Your task to perform on an android device: all mails in gmail Image 0: 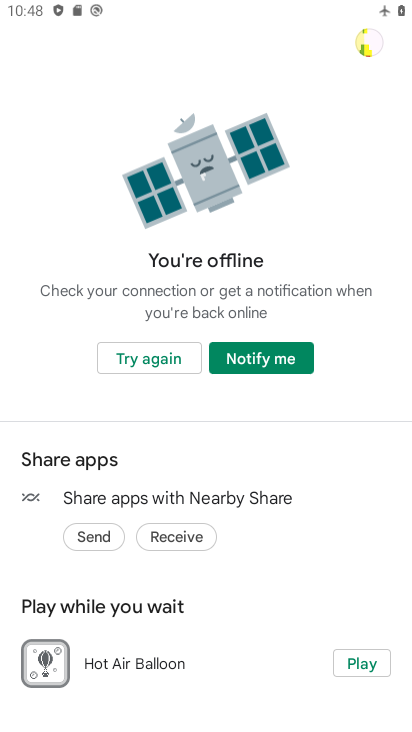
Step 0: press home button
Your task to perform on an android device: all mails in gmail Image 1: 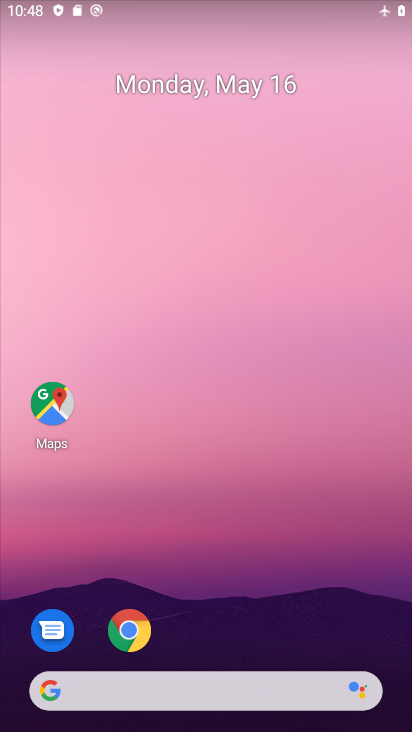
Step 1: drag from (227, 653) to (203, 164)
Your task to perform on an android device: all mails in gmail Image 2: 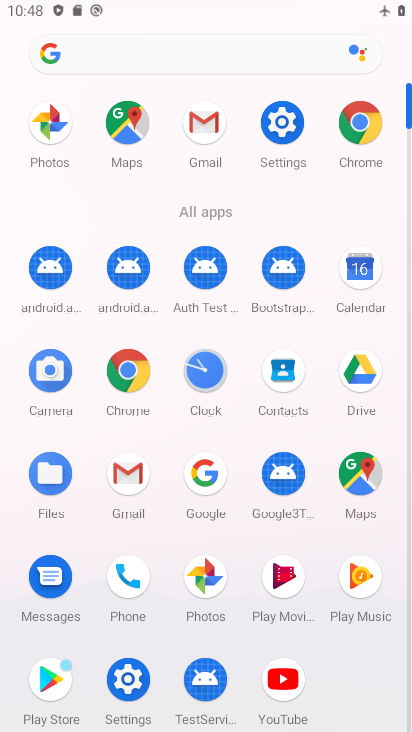
Step 2: click (190, 141)
Your task to perform on an android device: all mails in gmail Image 3: 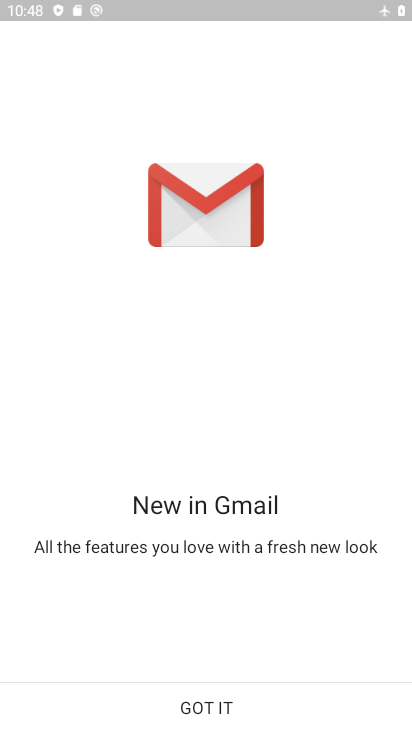
Step 3: click (219, 710)
Your task to perform on an android device: all mails in gmail Image 4: 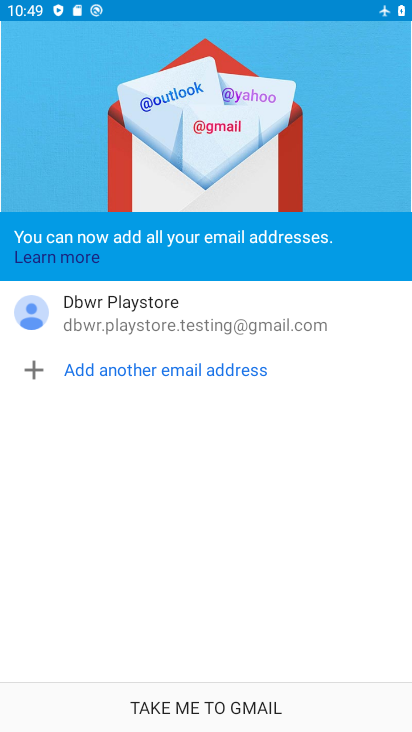
Step 4: click (219, 710)
Your task to perform on an android device: all mails in gmail Image 5: 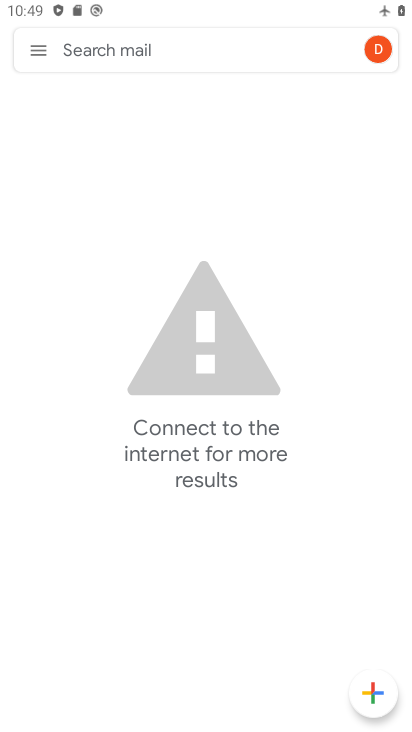
Step 5: task complete